Your task to perform on an android device: turn off airplane mode Image 0: 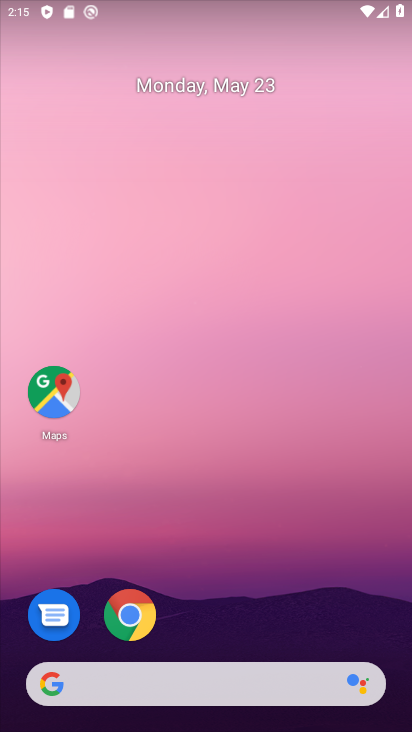
Step 0: drag from (303, 655) to (267, 3)
Your task to perform on an android device: turn off airplane mode Image 1: 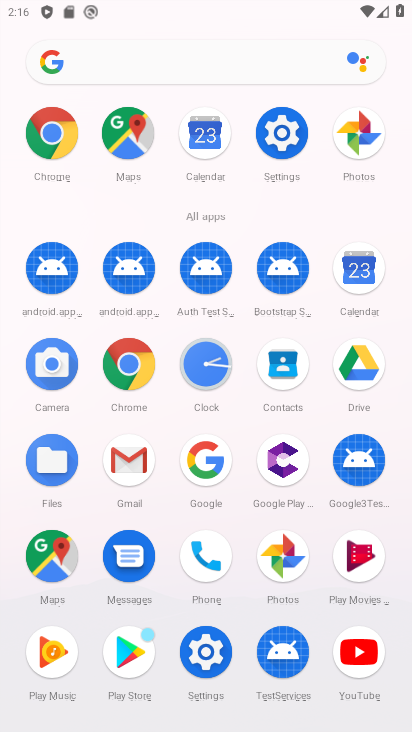
Step 1: click (279, 143)
Your task to perform on an android device: turn off airplane mode Image 2: 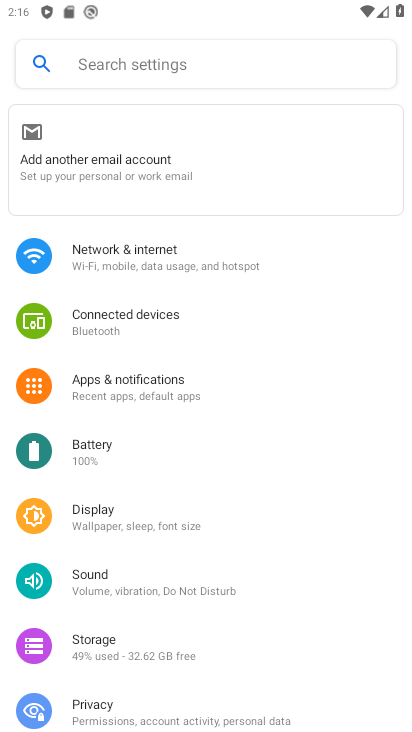
Step 2: click (145, 251)
Your task to perform on an android device: turn off airplane mode Image 3: 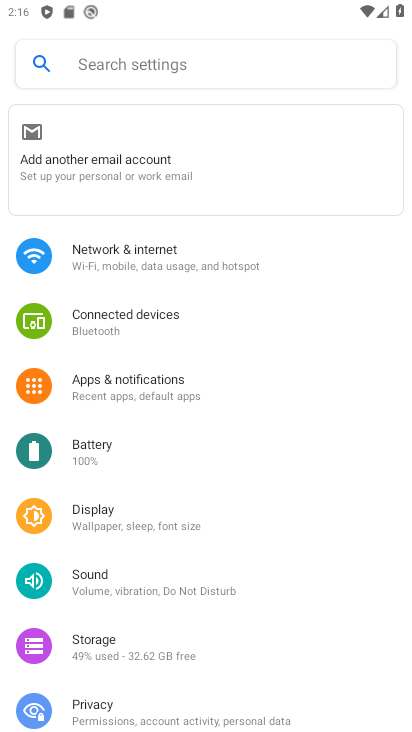
Step 3: click (96, 262)
Your task to perform on an android device: turn off airplane mode Image 4: 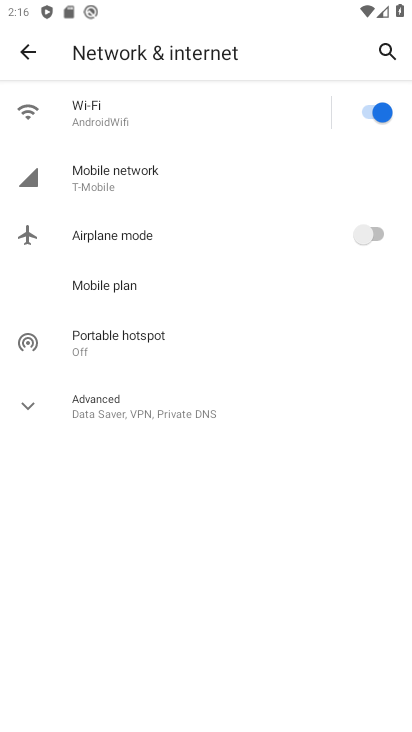
Step 4: task complete